Your task to perform on an android device: open chrome privacy settings Image 0: 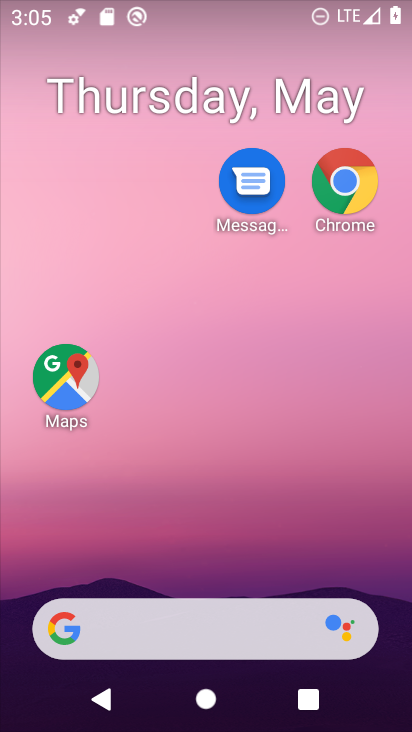
Step 0: drag from (280, 662) to (296, 92)
Your task to perform on an android device: open chrome privacy settings Image 1: 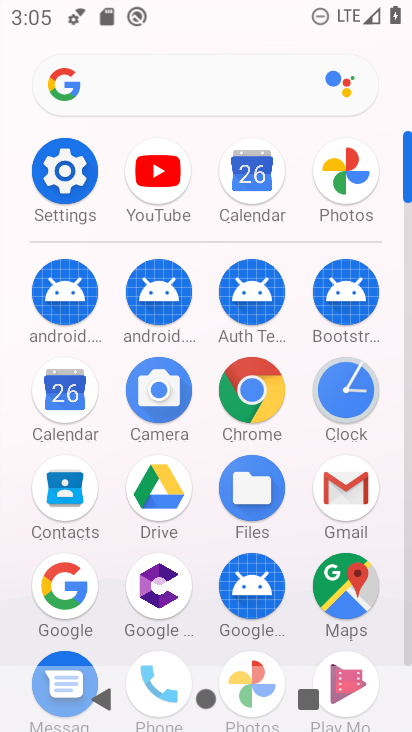
Step 1: click (72, 198)
Your task to perform on an android device: open chrome privacy settings Image 2: 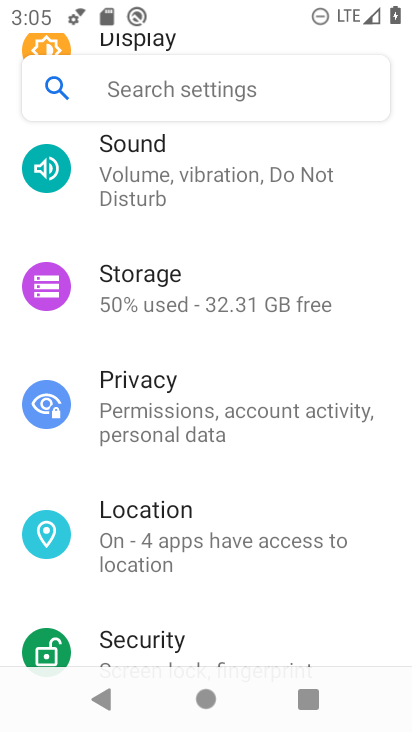
Step 2: press home button
Your task to perform on an android device: open chrome privacy settings Image 3: 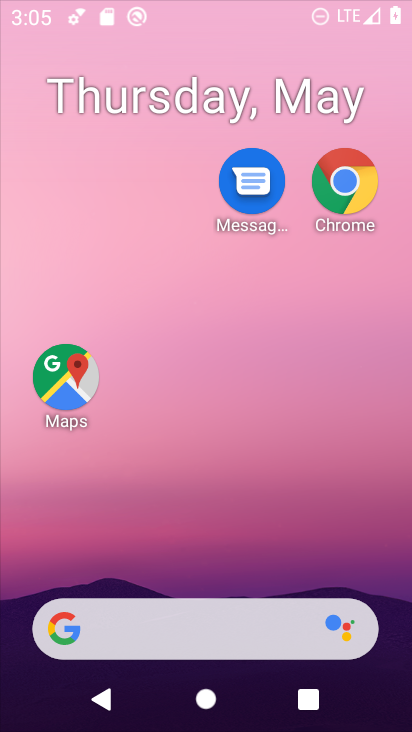
Step 3: drag from (258, 654) to (295, 38)
Your task to perform on an android device: open chrome privacy settings Image 4: 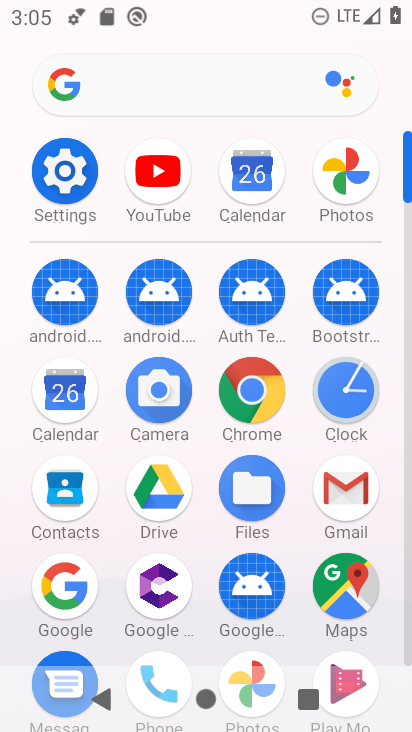
Step 4: click (255, 401)
Your task to perform on an android device: open chrome privacy settings Image 5: 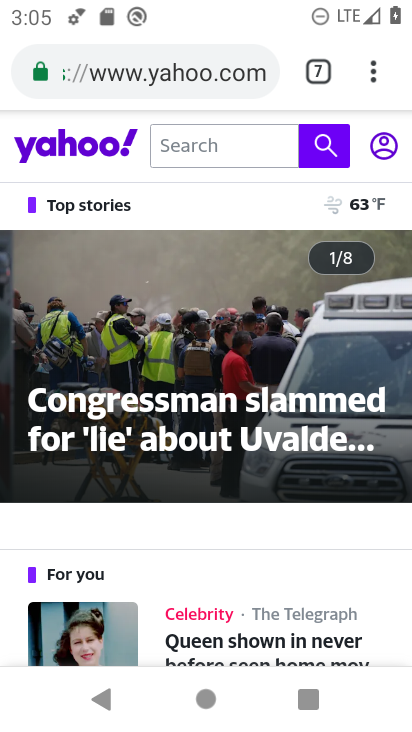
Step 5: drag from (375, 71) to (138, 492)
Your task to perform on an android device: open chrome privacy settings Image 6: 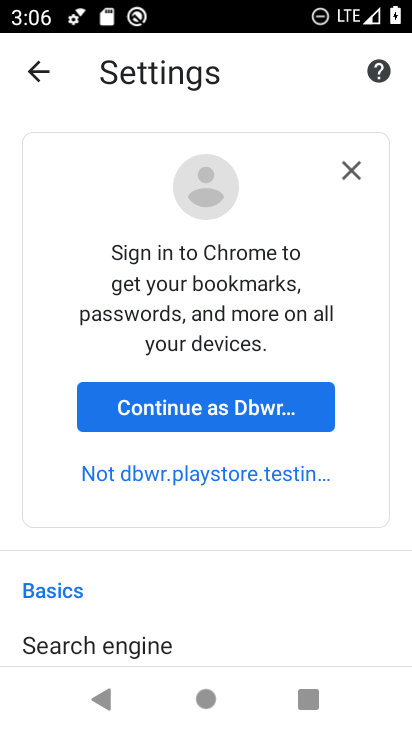
Step 6: drag from (197, 631) to (177, 22)
Your task to perform on an android device: open chrome privacy settings Image 7: 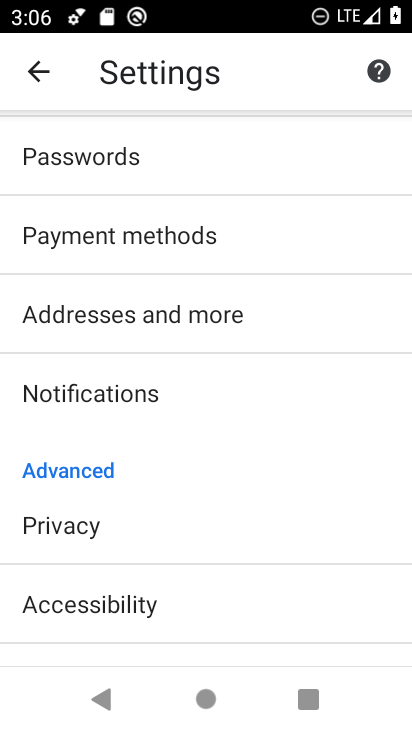
Step 7: drag from (163, 554) to (196, 120)
Your task to perform on an android device: open chrome privacy settings Image 8: 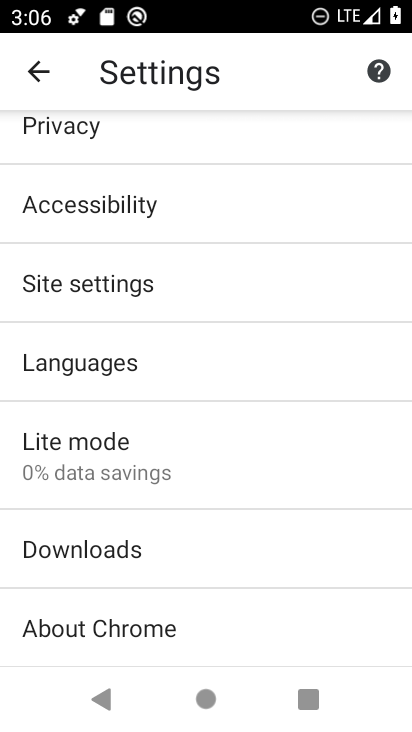
Step 8: drag from (144, 601) to (154, 310)
Your task to perform on an android device: open chrome privacy settings Image 9: 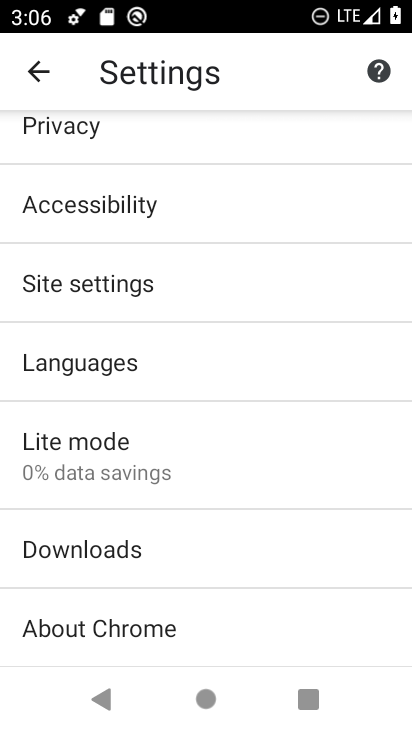
Step 9: click (128, 150)
Your task to perform on an android device: open chrome privacy settings Image 10: 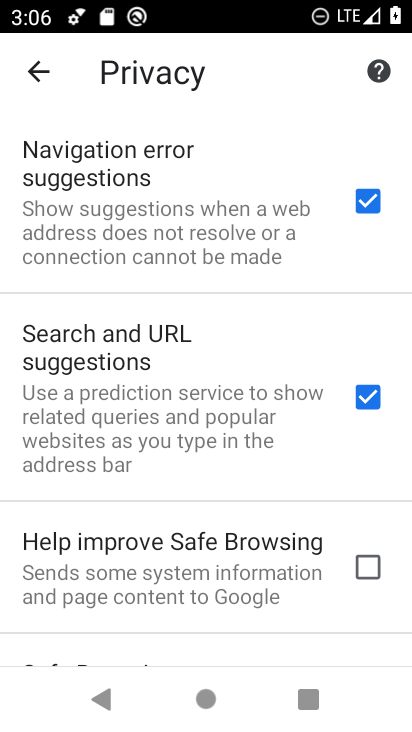
Step 10: task complete